Your task to perform on an android device: open a new tab in the chrome app Image 0: 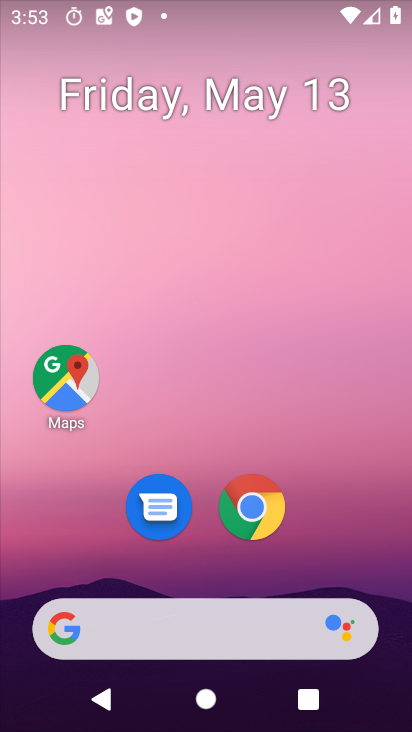
Step 0: click (262, 502)
Your task to perform on an android device: open a new tab in the chrome app Image 1: 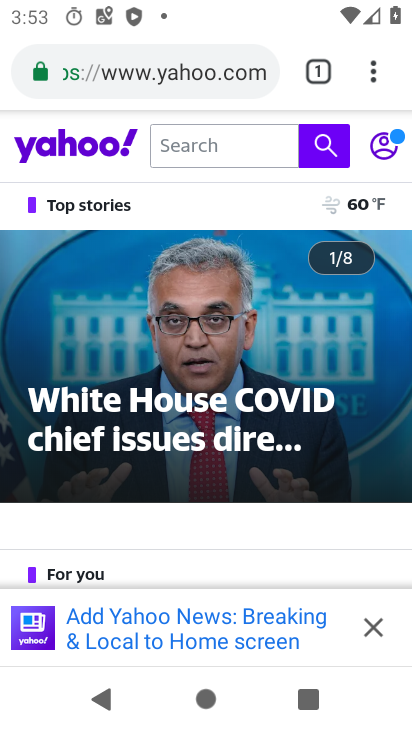
Step 1: click (321, 69)
Your task to perform on an android device: open a new tab in the chrome app Image 2: 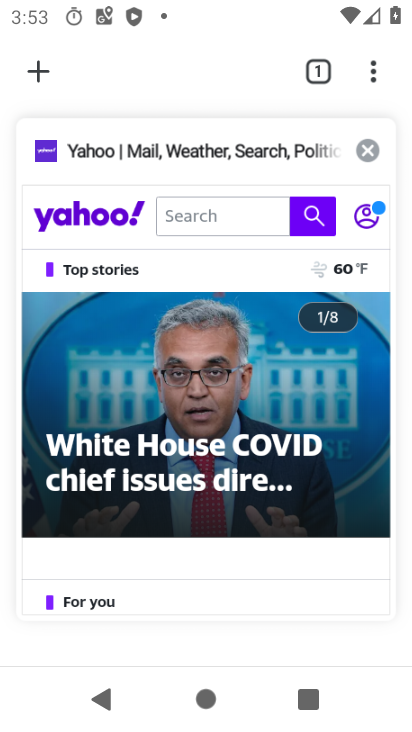
Step 2: click (34, 73)
Your task to perform on an android device: open a new tab in the chrome app Image 3: 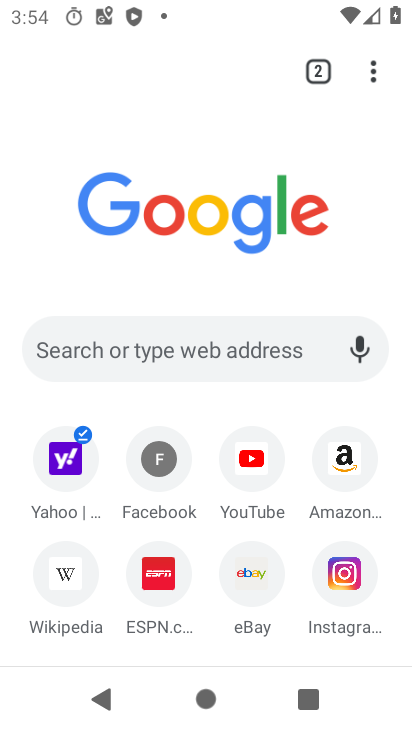
Step 3: task complete